Your task to perform on an android device: Do I have any events tomorrow? Image 0: 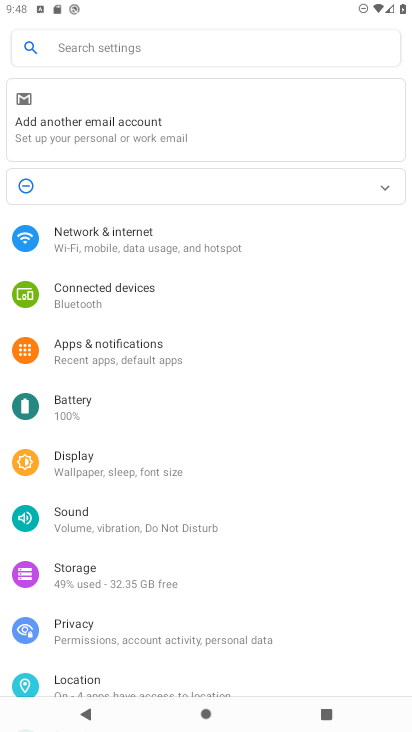
Step 0: press home button
Your task to perform on an android device: Do I have any events tomorrow? Image 1: 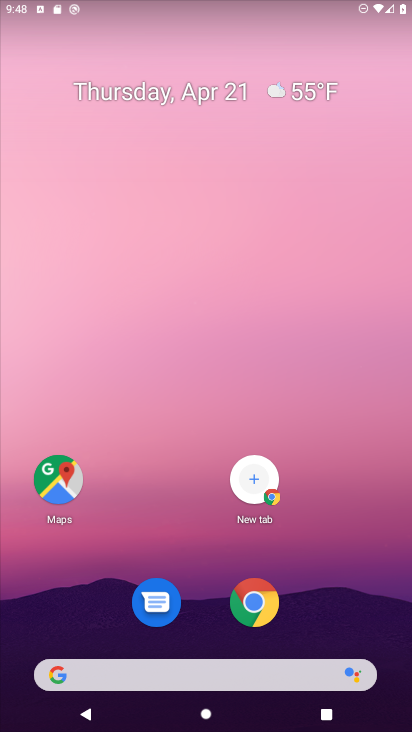
Step 1: click (164, 73)
Your task to perform on an android device: Do I have any events tomorrow? Image 2: 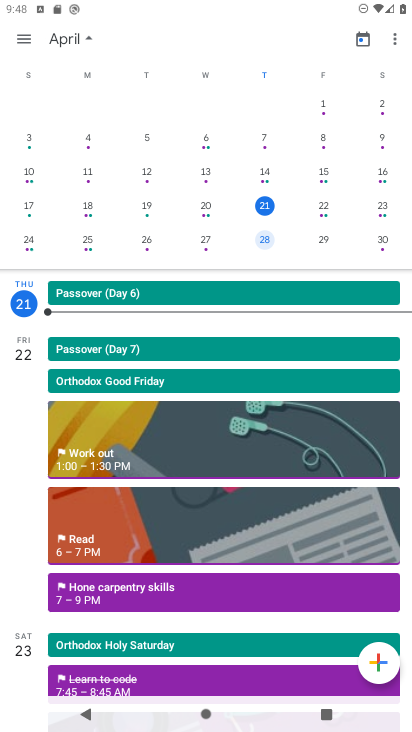
Step 2: click (80, 50)
Your task to perform on an android device: Do I have any events tomorrow? Image 3: 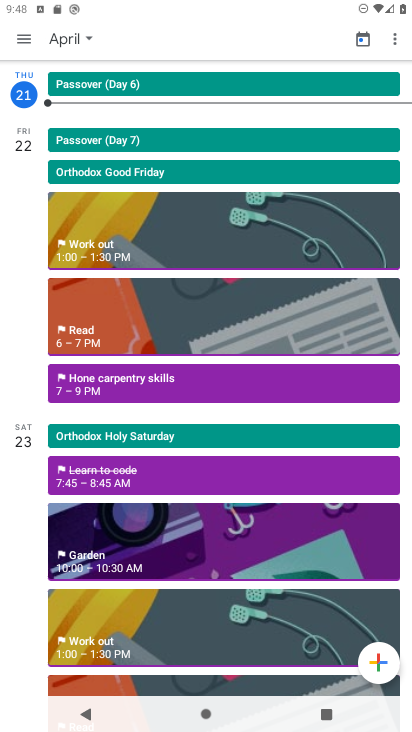
Step 3: click (65, 44)
Your task to perform on an android device: Do I have any events tomorrow? Image 4: 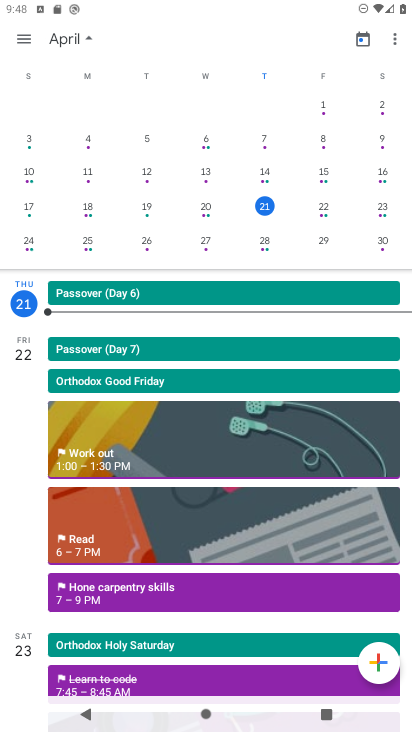
Step 4: click (321, 200)
Your task to perform on an android device: Do I have any events tomorrow? Image 5: 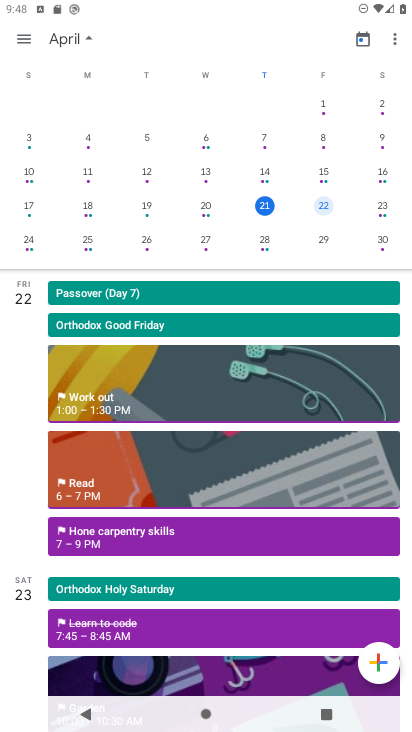
Step 5: click (146, 545)
Your task to perform on an android device: Do I have any events tomorrow? Image 6: 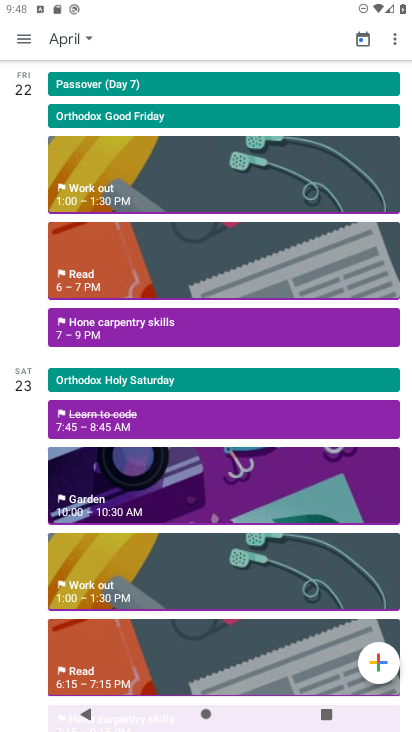
Step 6: click (166, 328)
Your task to perform on an android device: Do I have any events tomorrow? Image 7: 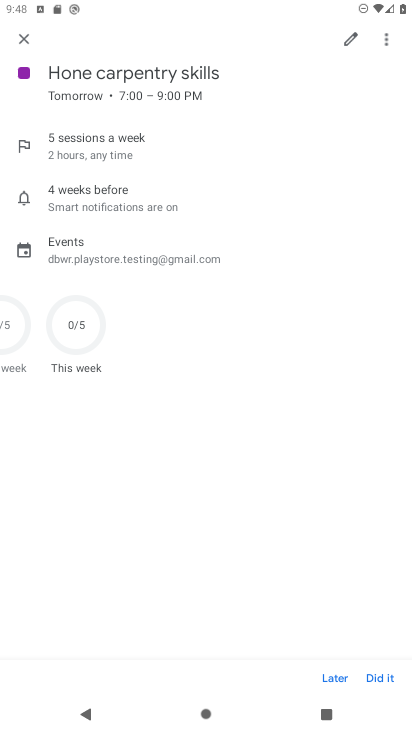
Step 7: task complete